Your task to perform on an android device: Check the news Image 0: 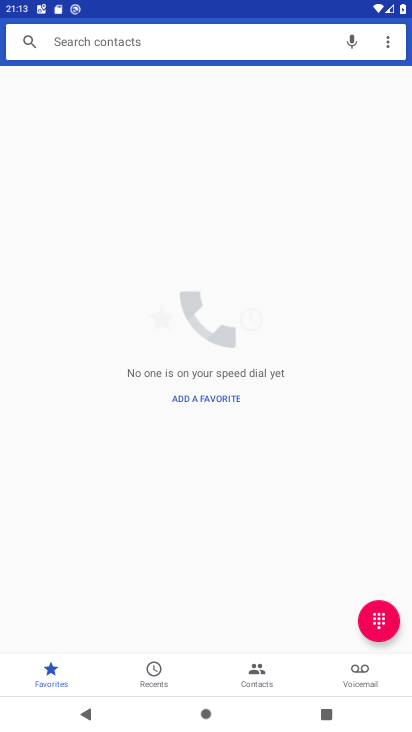
Step 0: press back button
Your task to perform on an android device: Check the news Image 1: 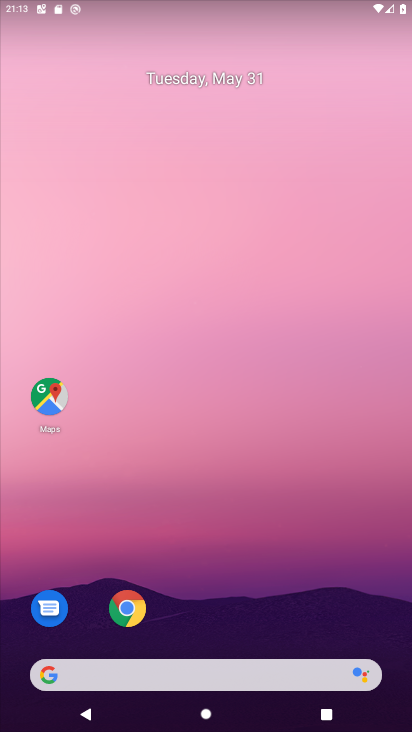
Step 1: drag from (250, 614) to (171, 221)
Your task to perform on an android device: Check the news Image 2: 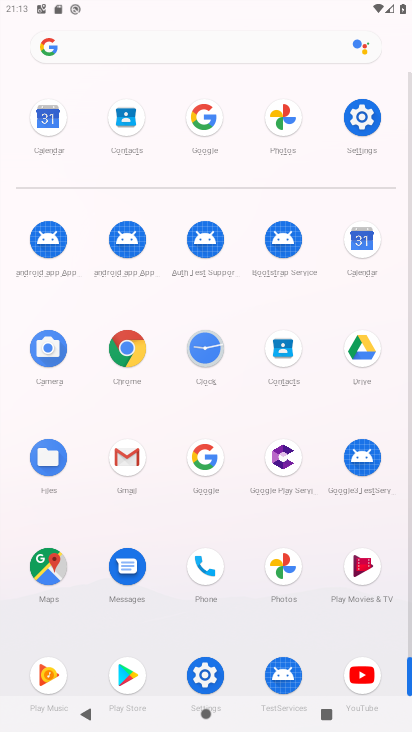
Step 2: click (198, 114)
Your task to perform on an android device: Check the news Image 3: 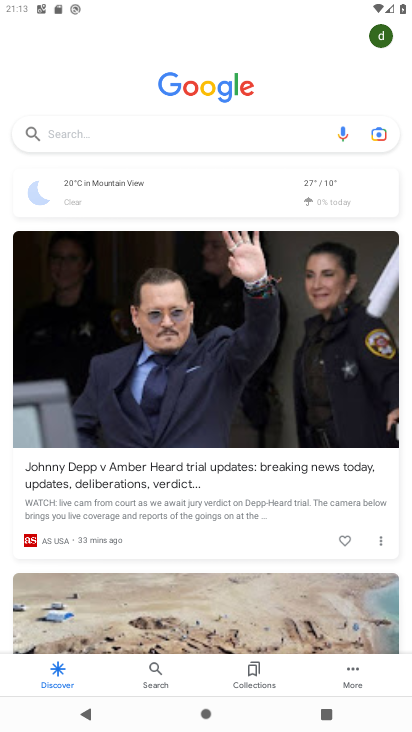
Step 3: click (182, 125)
Your task to perform on an android device: Check the news Image 4: 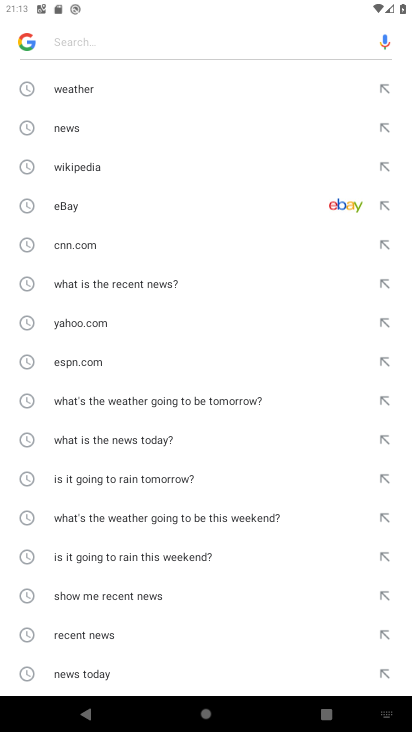
Step 4: click (72, 130)
Your task to perform on an android device: Check the news Image 5: 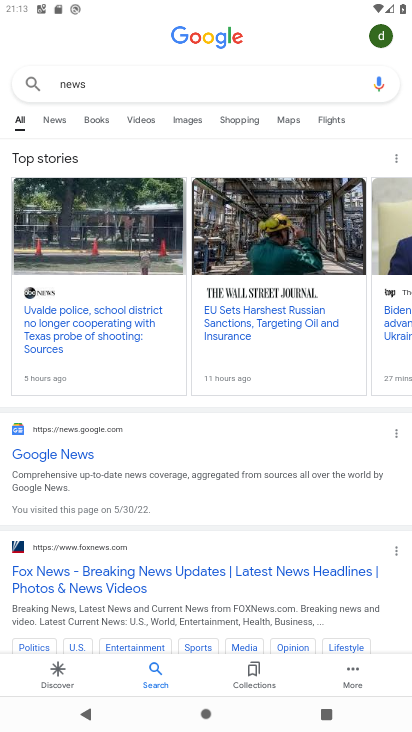
Step 5: task complete